Your task to perform on an android device: turn on sleep mode Image 0: 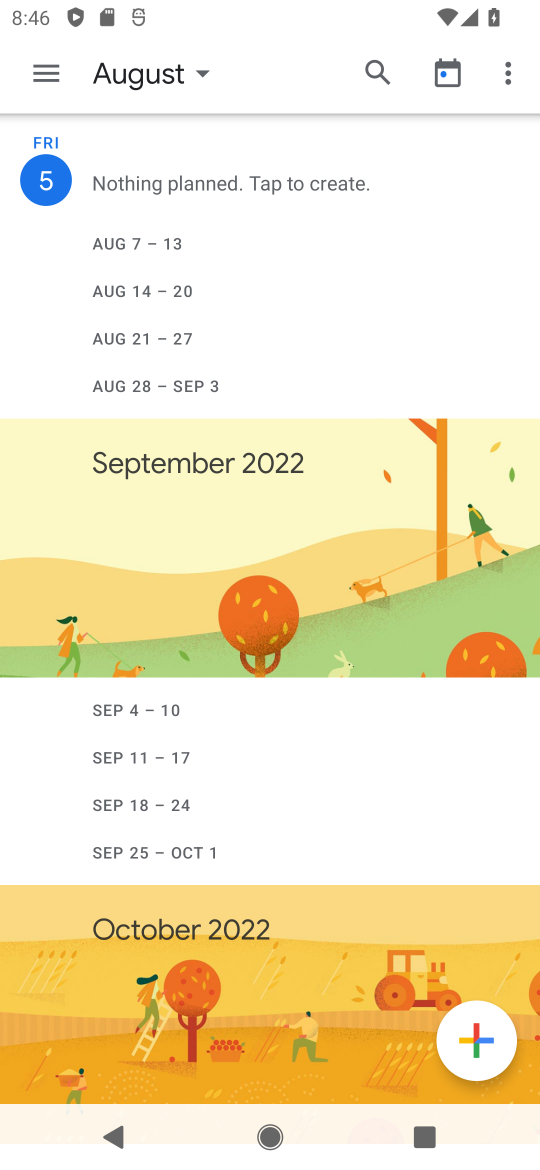
Step 0: press home button
Your task to perform on an android device: turn on sleep mode Image 1: 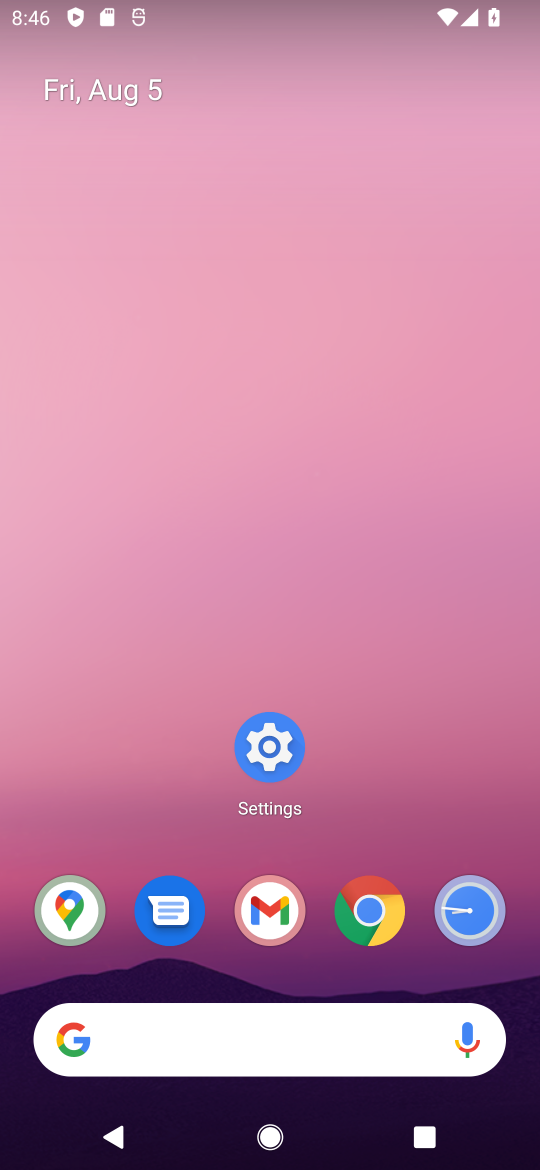
Step 1: drag from (260, 975) to (449, 200)
Your task to perform on an android device: turn on sleep mode Image 2: 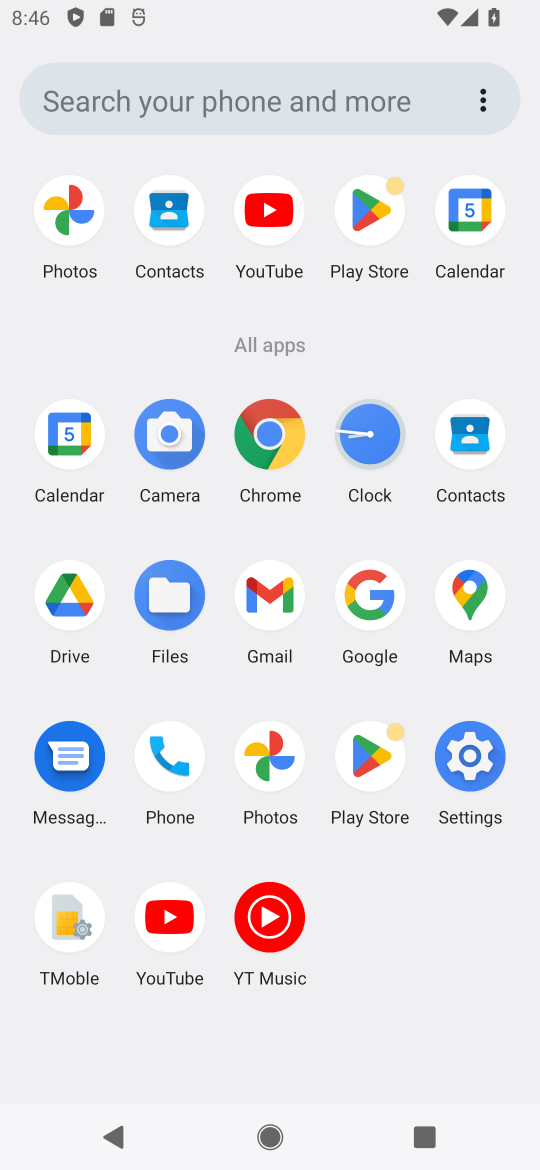
Step 2: click (476, 757)
Your task to perform on an android device: turn on sleep mode Image 3: 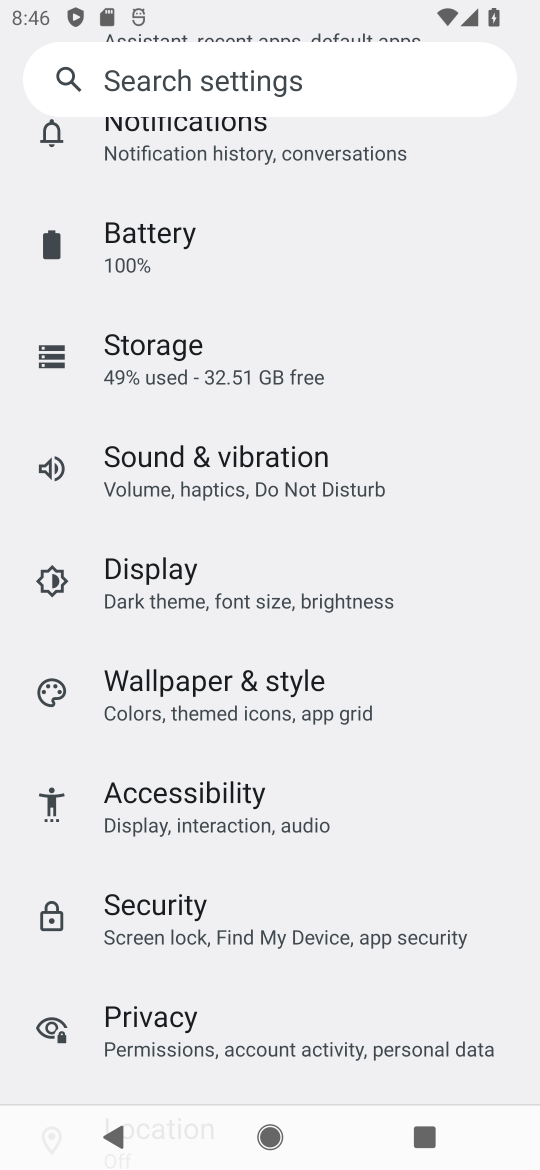
Step 3: click (188, 572)
Your task to perform on an android device: turn on sleep mode Image 4: 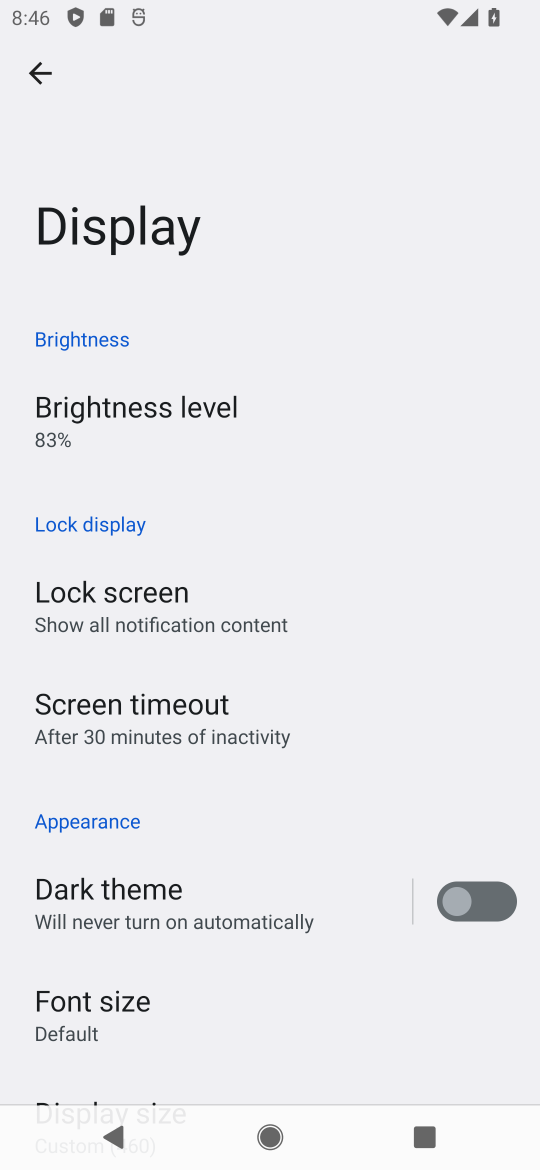
Step 4: task complete